Your task to perform on an android device: toggle sleep mode Image 0: 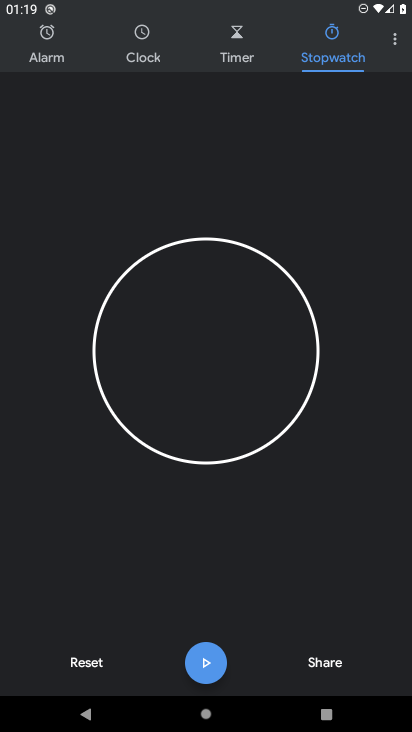
Step 0: press home button
Your task to perform on an android device: toggle sleep mode Image 1: 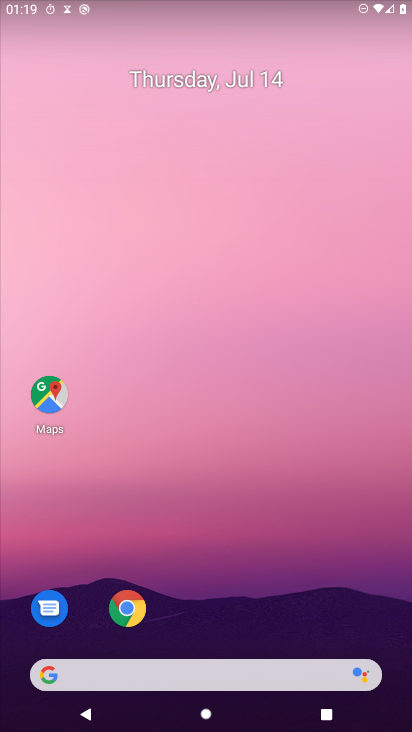
Step 1: drag from (237, 619) to (266, 89)
Your task to perform on an android device: toggle sleep mode Image 2: 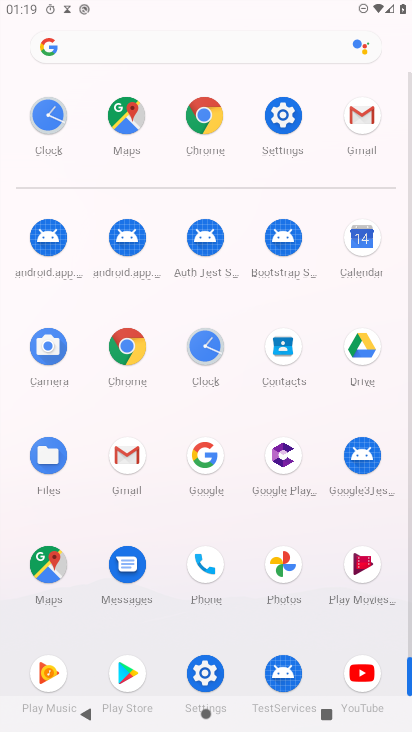
Step 2: click (272, 113)
Your task to perform on an android device: toggle sleep mode Image 3: 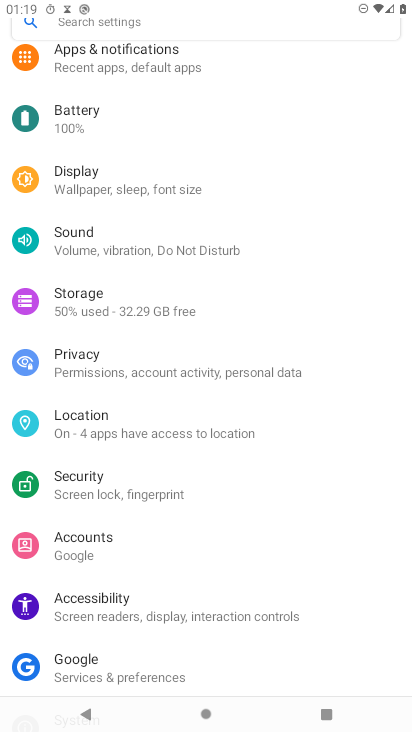
Step 3: click (144, 181)
Your task to perform on an android device: toggle sleep mode Image 4: 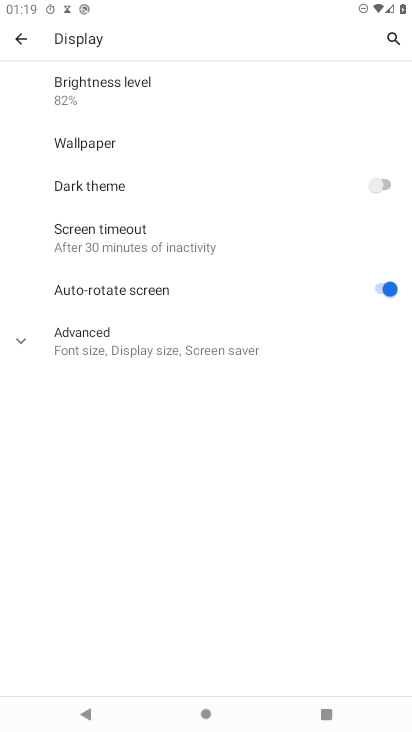
Step 4: click (13, 337)
Your task to perform on an android device: toggle sleep mode Image 5: 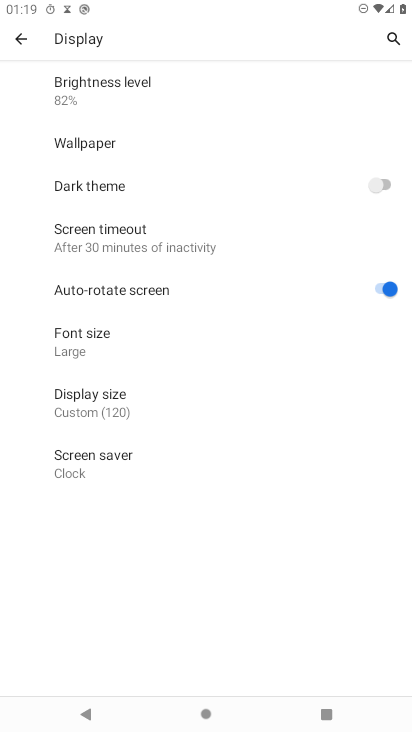
Step 5: task complete